Your task to perform on an android device: delete browsing data in the chrome app Image 0: 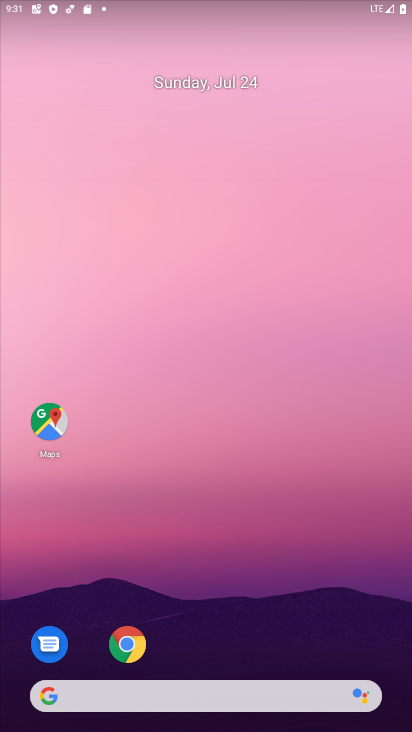
Step 0: click (138, 651)
Your task to perform on an android device: delete browsing data in the chrome app Image 1: 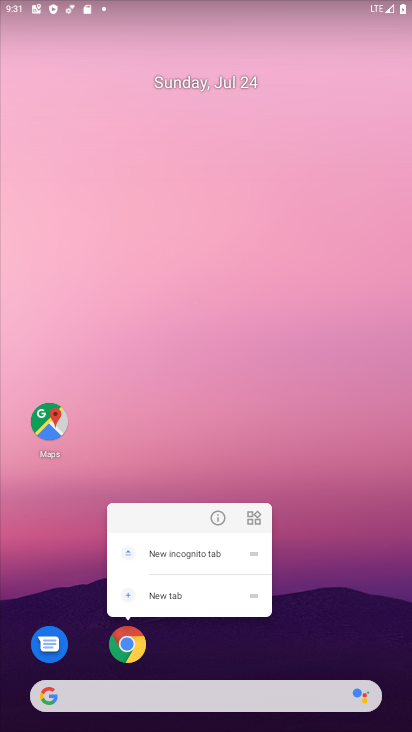
Step 1: click (131, 645)
Your task to perform on an android device: delete browsing data in the chrome app Image 2: 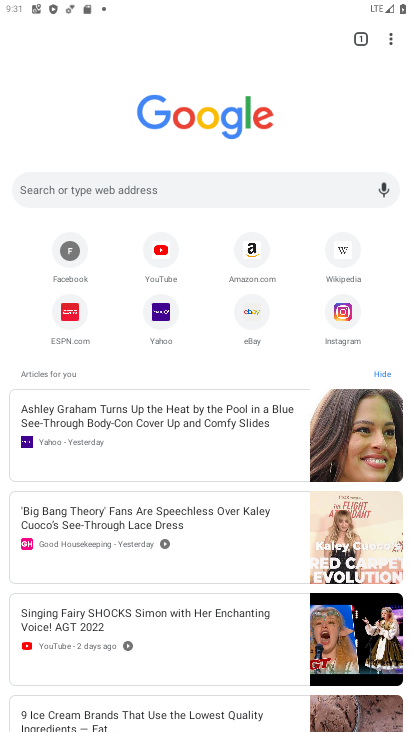
Step 2: click (390, 40)
Your task to perform on an android device: delete browsing data in the chrome app Image 3: 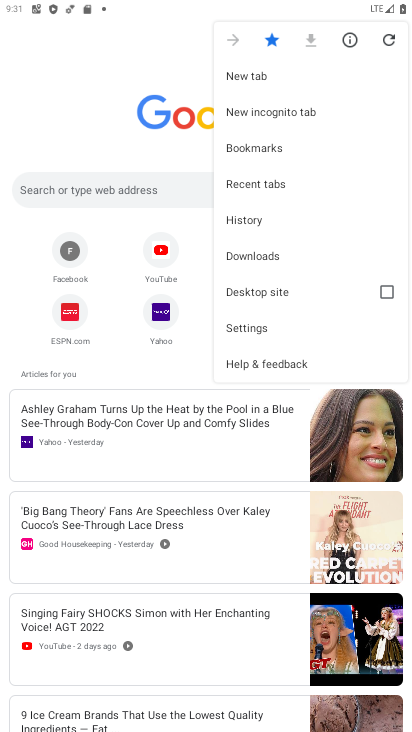
Step 3: click (242, 327)
Your task to perform on an android device: delete browsing data in the chrome app Image 4: 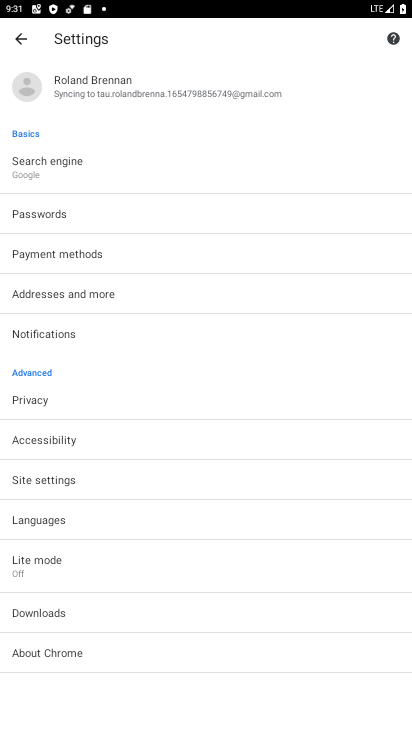
Step 4: click (38, 404)
Your task to perform on an android device: delete browsing data in the chrome app Image 5: 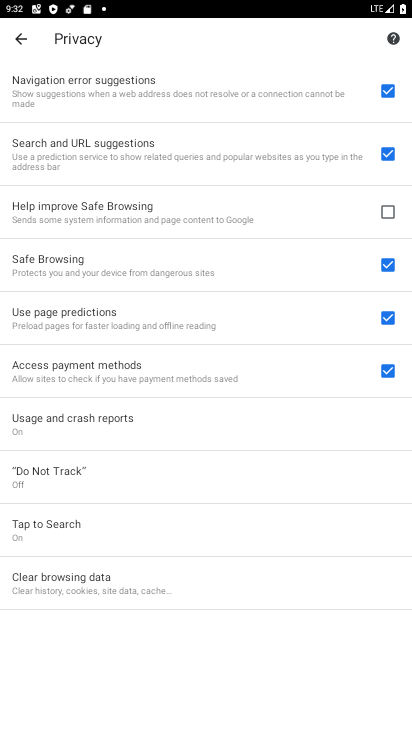
Step 5: click (99, 578)
Your task to perform on an android device: delete browsing data in the chrome app Image 6: 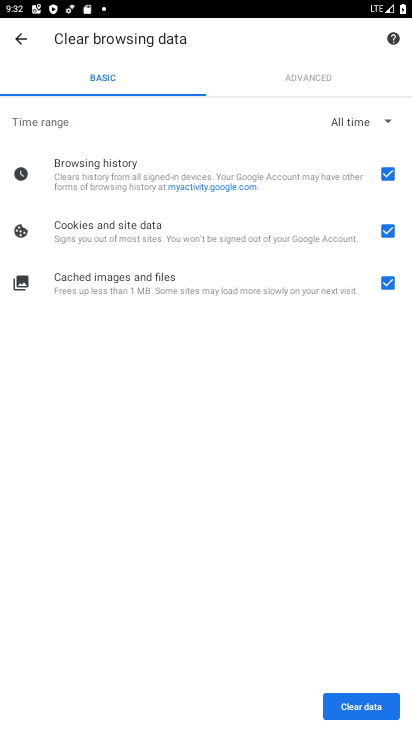
Step 6: click (389, 701)
Your task to perform on an android device: delete browsing data in the chrome app Image 7: 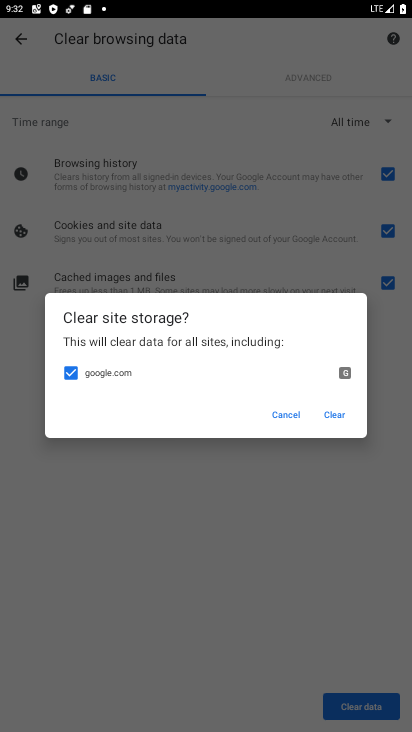
Step 7: click (332, 407)
Your task to perform on an android device: delete browsing data in the chrome app Image 8: 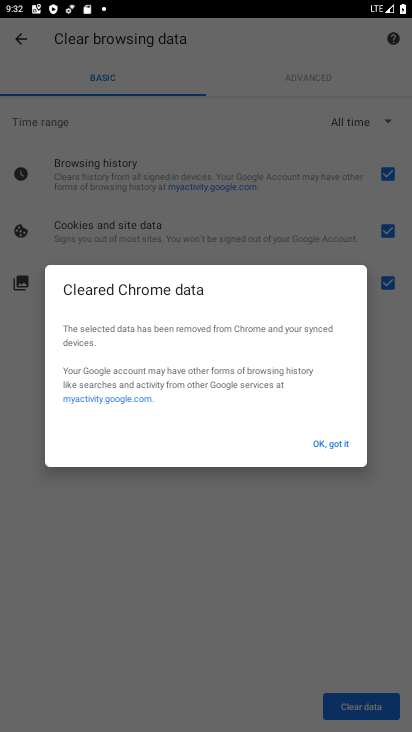
Step 8: click (327, 441)
Your task to perform on an android device: delete browsing data in the chrome app Image 9: 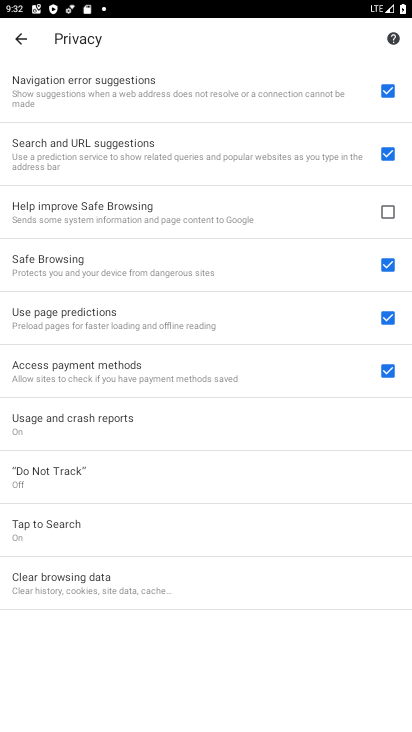
Step 9: task complete